Your task to perform on an android device: Open Youtube and go to the subscriptions tab Image 0: 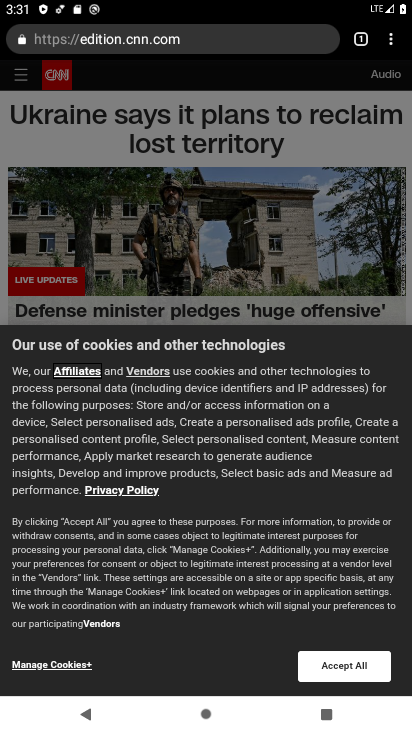
Step 0: press home button
Your task to perform on an android device: Open Youtube and go to the subscriptions tab Image 1: 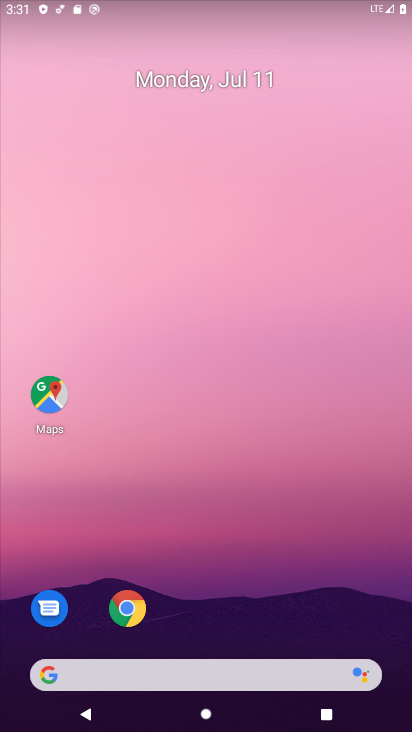
Step 1: drag from (202, 650) to (89, 44)
Your task to perform on an android device: Open Youtube and go to the subscriptions tab Image 2: 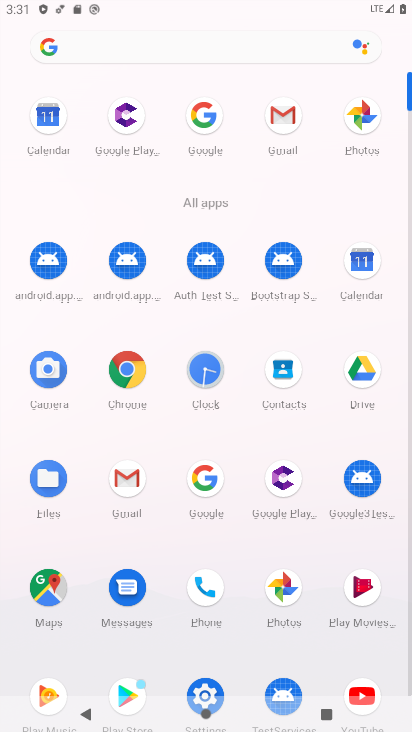
Step 2: click (357, 687)
Your task to perform on an android device: Open Youtube and go to the subscriptions tab Image 3: 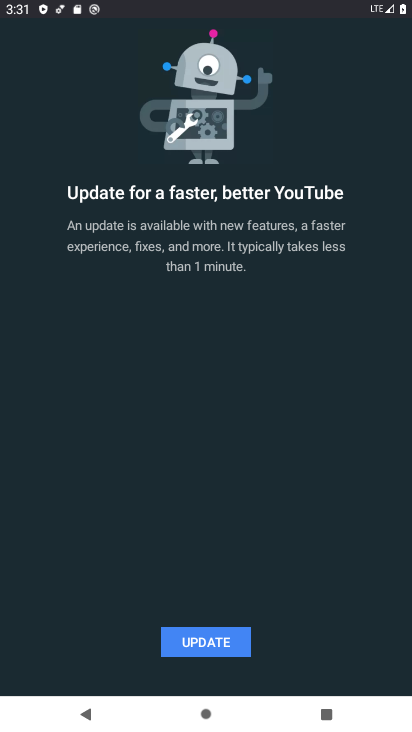
Step 3: click (213, 645)
Your task to perform on an android device: Open Youtube and go to the subscriptions tab Image 4: 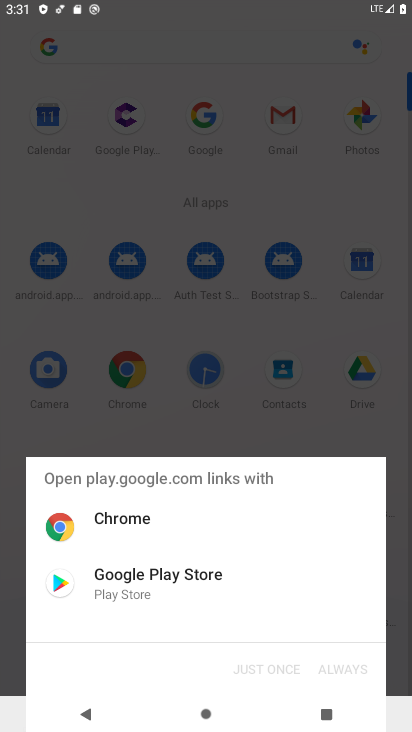
Step 4: click (141, 588)
Your task to perform on an android device: Open Youtube and go to the subscriptions tab Image 5: 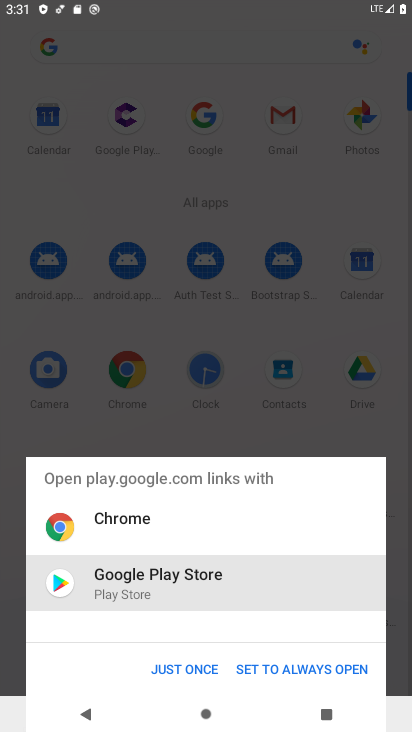
Step 5: click (202, 668)
Your task to perform on an android device: Open Youtube and go to the subscriptions tab Image 6: 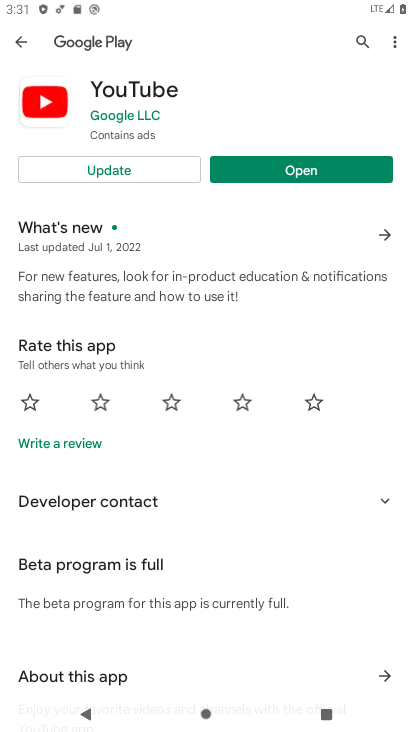
Step 6: click (141, 175)
Your task to perform on an android device: Open Youtube and go to the subscriptions tab Image 7: 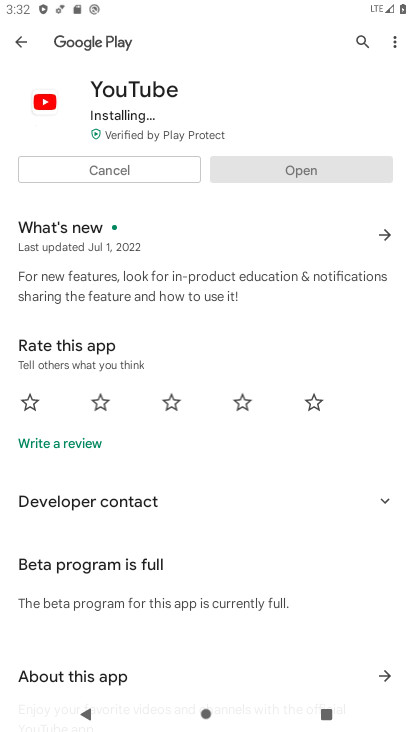
Step 7: task complete